Your task to perform on an android device: Go to Wikipedia Image 0: 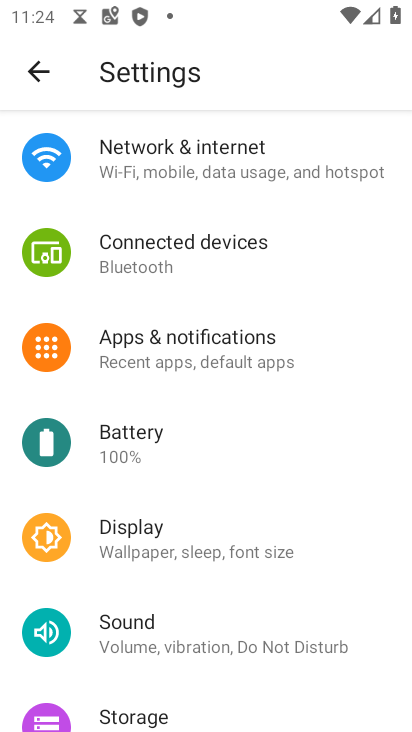
Step 0: press home button
Your task to perform on an android device: Go to Wikipedia Image 1: 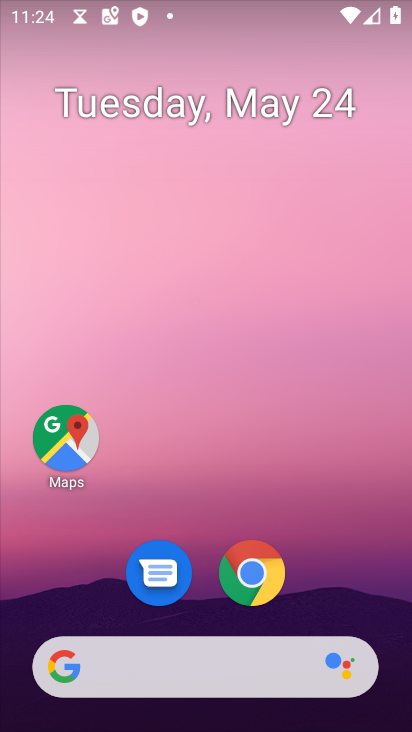
Step 1: click (273, 587)
Your task to perform on an android device: Go to Wikipedia Image 2: 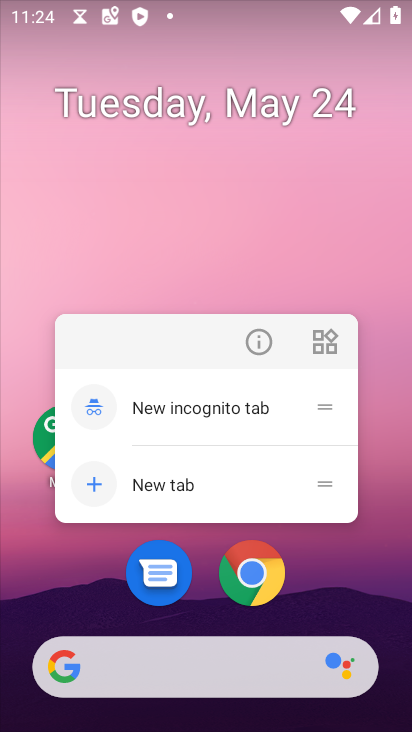
Step 2: click (262, 564)
Your task to perform on an android device: Go to Wikipedia Image 3: 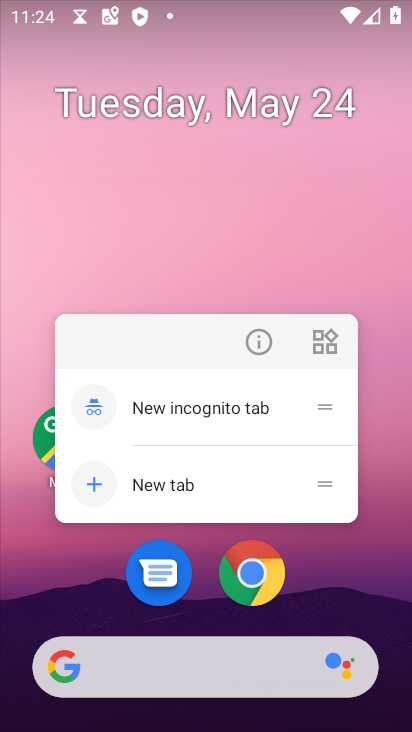
Step 3: click (249, 569)
Your task to perform on an android device: Go to Wikipedia Image 4: 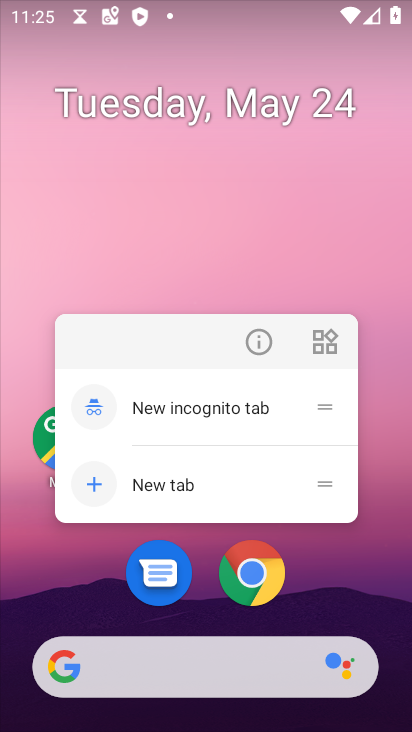
Step 4: click (262, 572)
Your task to perform on an android device: Go to Wikipedia Image 5: 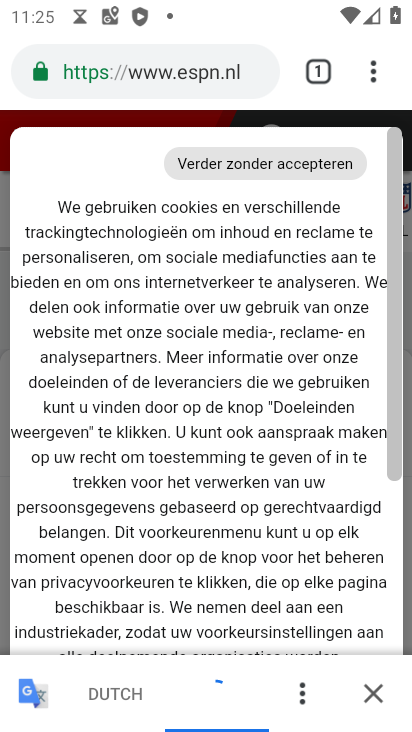
Step 5: drag from (379, 69) to (311, 142)
Your task to perform on an android device: Go to Wikipedia Image 6: 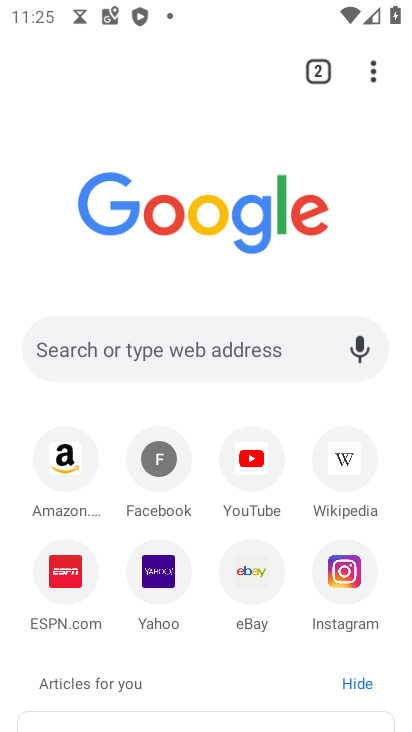
Step 6: click (339, 434)
Your task to perform on an android device: Go to Wikipedia Image 7: 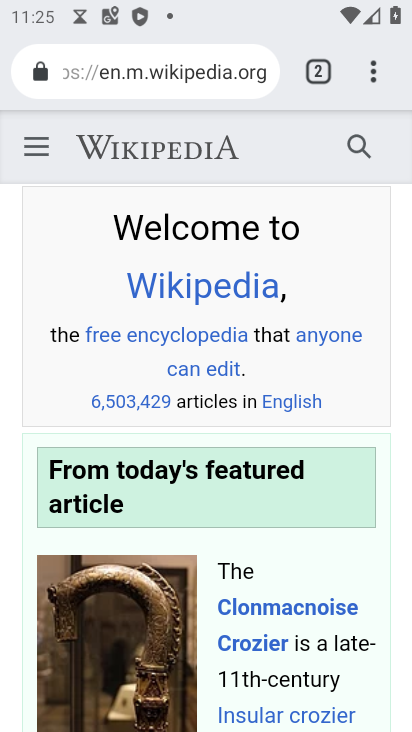
Step 7: task complete